Your task to perform on an android device: turn vacation reply on in the gmail app Image 0: 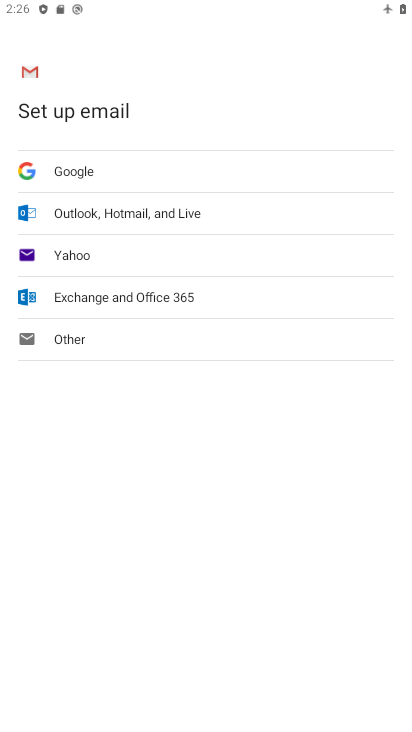
Step 0: press home button
Your task to perform on an android device: turn vacation reply on in the gmail app Image 1: 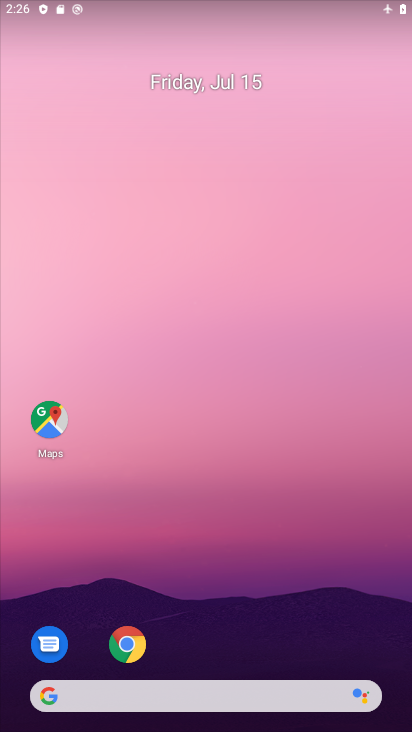
Step 1: drag from (312, 662) to (367, 8)
Your task to perform on an android device: turn vacation reply on in the gmail app Image 2: 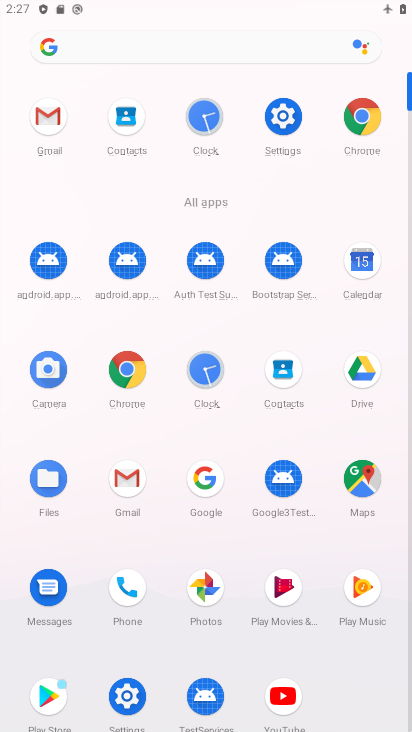
Step 2: click (123, 469)
Your task to perform on an android device: turn vacation reply on in the gmail app Image 3: 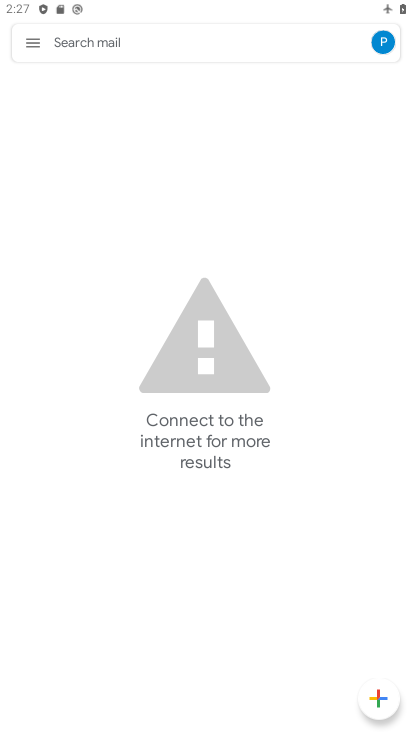
Step 3: press home button
Your task to perform on an android device: turn vacation reply on in the gmail app Image 4: 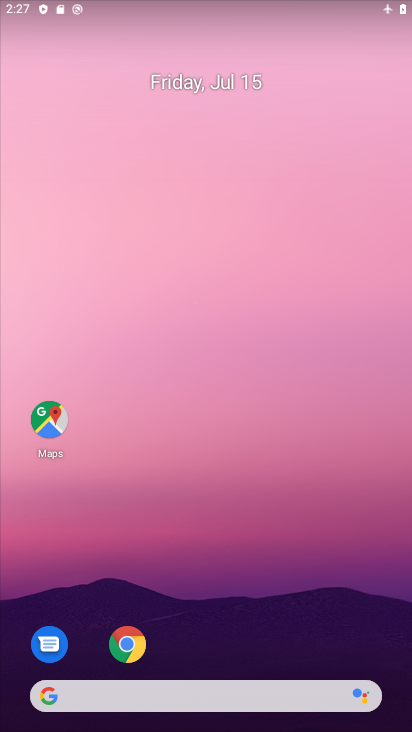
Step 4: drag from (247, 636) to (234, 0)
Your task to perform on an android device: turn vacation reply on in the gmail app Image 5: 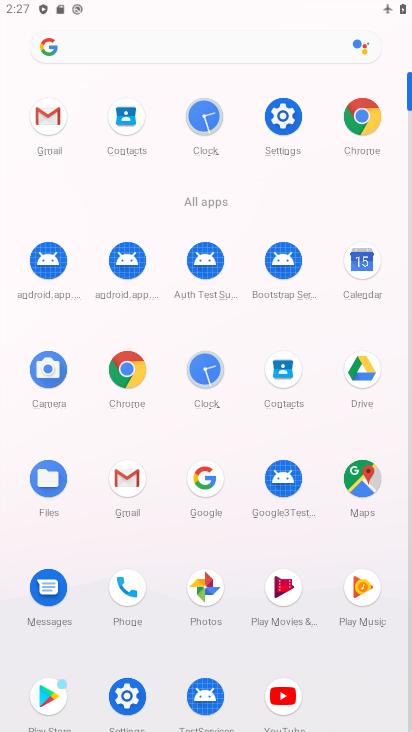
Step 5: click (130, 512)
Your task to perform on an android device: turn vacation reply on in the gmail app Image 6: 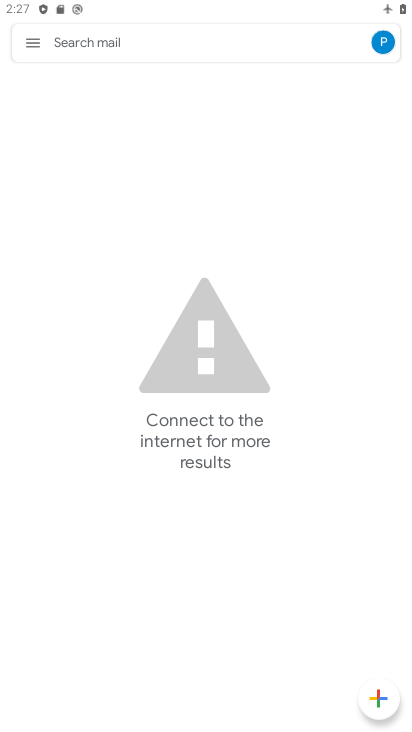
Step 6: click (29, 37)
Your task to perform on an android device: turn vacation reply on in the gmail app Image 7: 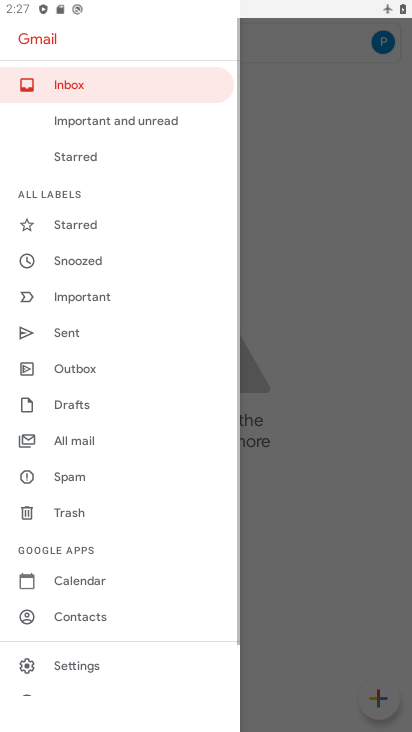
Step 7: click (71, 660)
Your task to perform on an android device: turn vacation reply on in the gmail app Image 8: 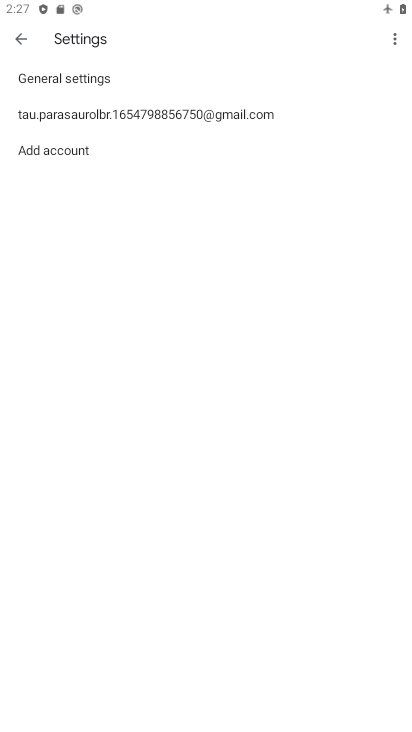
Step 8: click (196, 123)
Your task to perform on an android device: turn vacation reply on in the gmail app Image 9: 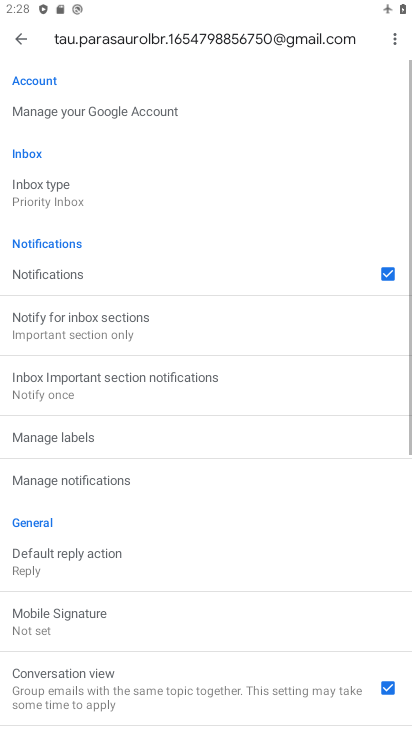
Step 9: drag from (214, 660) to (242, 281)
Your task to perform on an android device: turn vacation reply on in the gmail app Image 10: 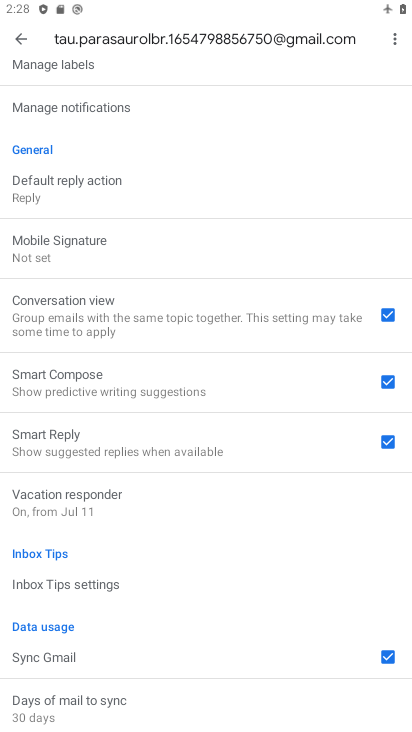
Step 10: click (136, 509)
Your task to perform on an android device: turn vacation reply on in the gmail app Image 11: 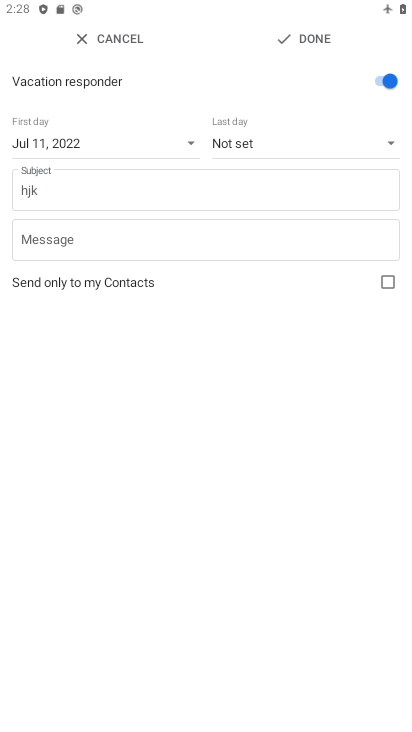
Step 11: task complete